Your task to perform on an android device: change timer sound Image 0: 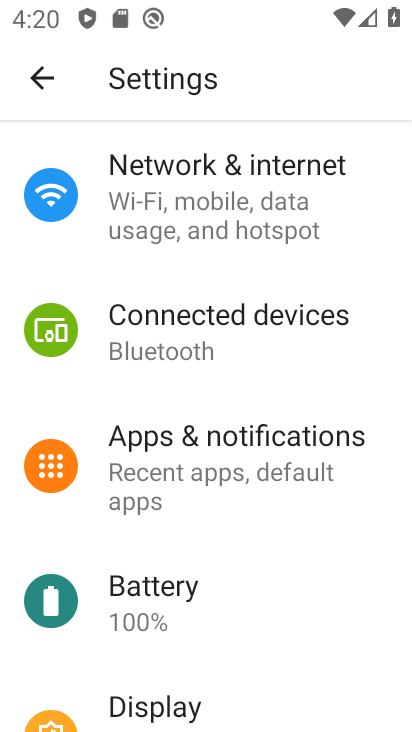
Step 0: press home button
Your task to perform on an android device: change timer sound Image 1: 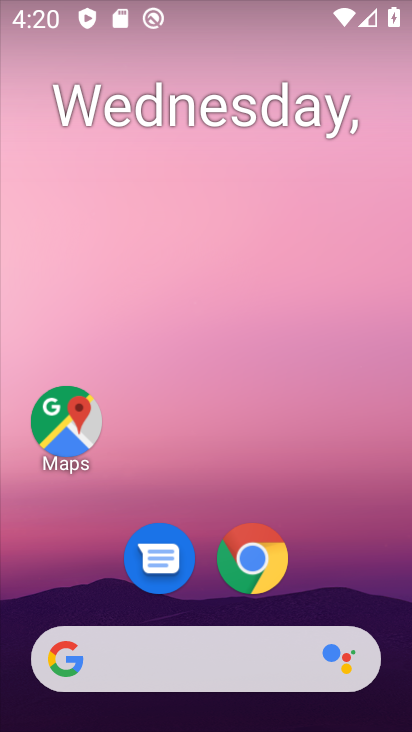
Step 1: drag from (340, 578) to (363, 271)
Your task to perform on an android device: change timer sound Image 2: 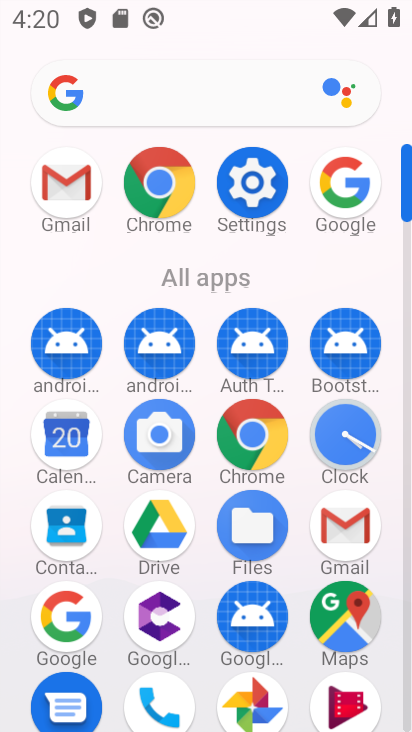
Step 2: click (353, 441)
Your task to perform on an android device: change timer sound Image 3: 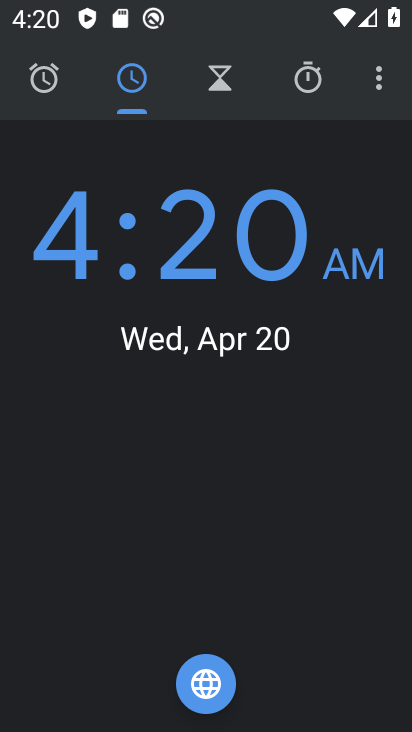
Step 3: click (384, 88)
Your task to perform on an android device: change timer sound Image 4: 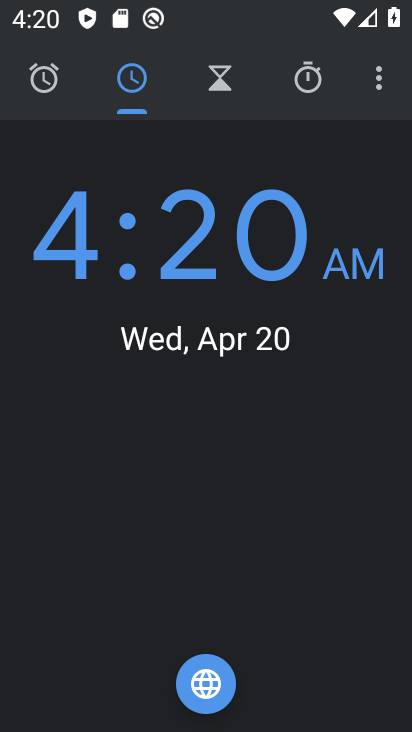
Step 4: click (383, 70)
Your task to perform on an android device: change timer sound Image 5: 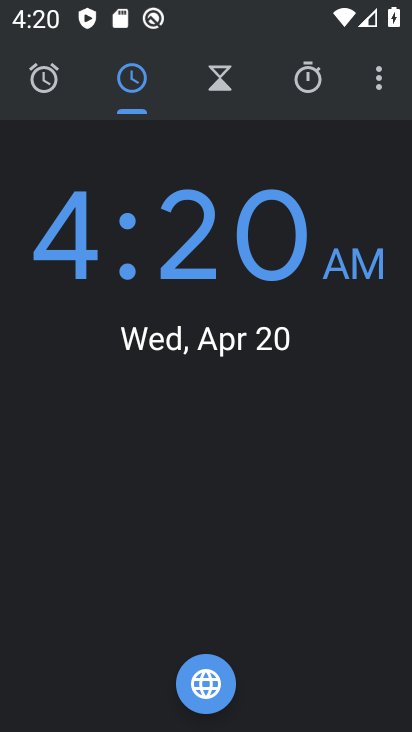
Step 5: click (379, 82)
Your task to perform on an android device: change timer sound Image 6: 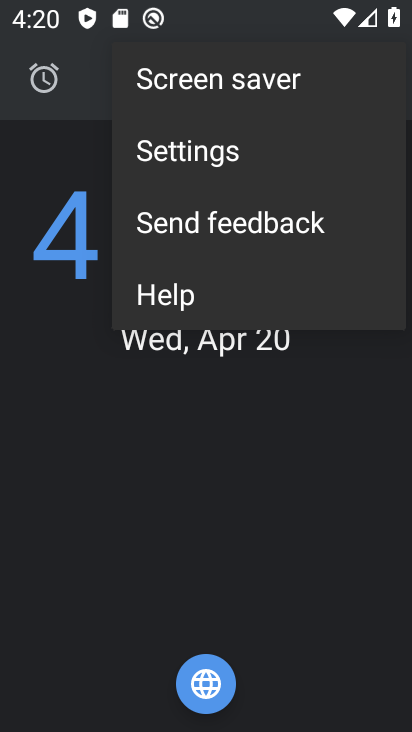
Step 6: click (288, 152)
Your task to perform on an android device: change timer sound Image 7: 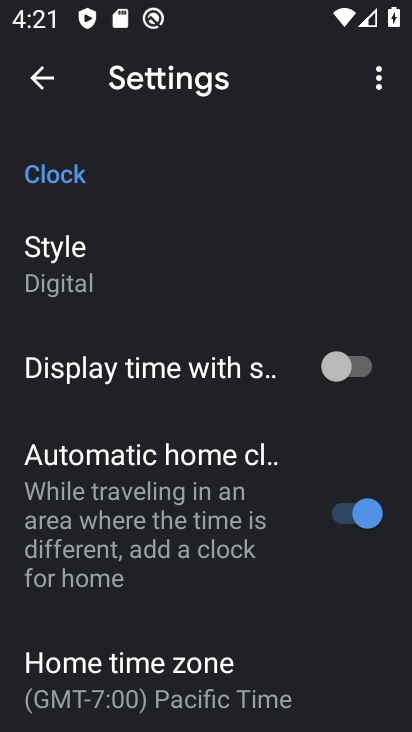
Step 7: drag from (293, 569) to (283, 446)
Your task to perform on an android device: change timer sound Image 8: 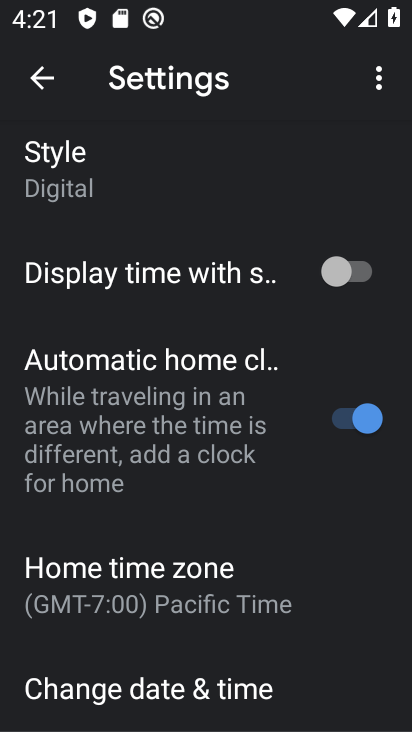
Step 8: drag from (292, 527) to (305, 416)
Your task to perform on an android device: change timer sound Image 9: 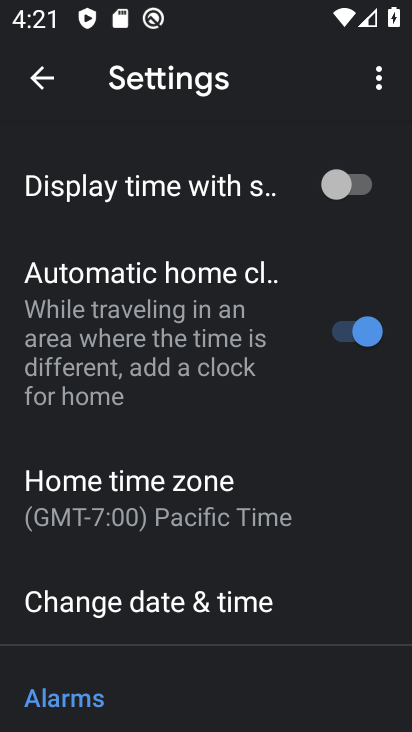
Step 9: drag from (317, 559) to (316, 439)
Your task to perform on an android device: change timer sound Image 10: 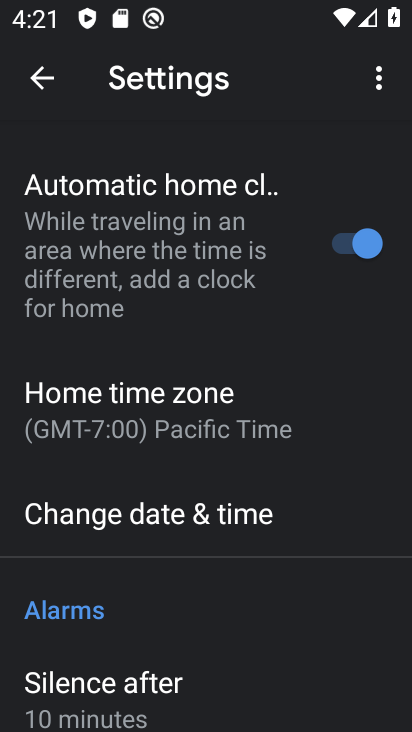
Step 10: drag from (296, 599) to (319, 466)
Your task to perform on an android device: change timer sound Image 11: 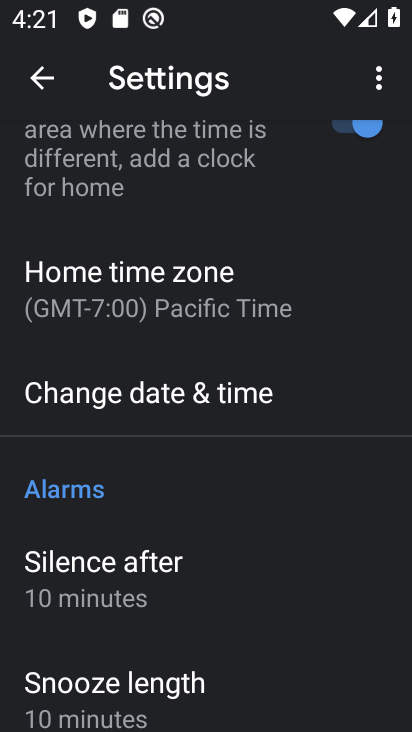
Step 11: drag from (303, 632) to (329, 466)
Your task to perform on an android device: change timer sound Image 12: 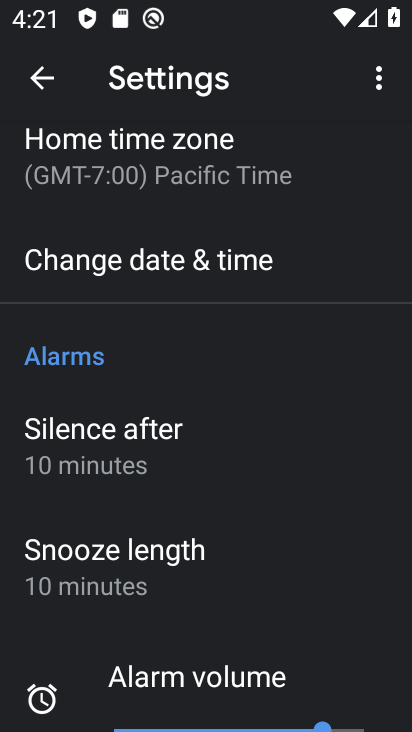
Step 12: drag from (305, 579) to (336, 413)
Your task to perform on an android device: change timer sound Image 13: 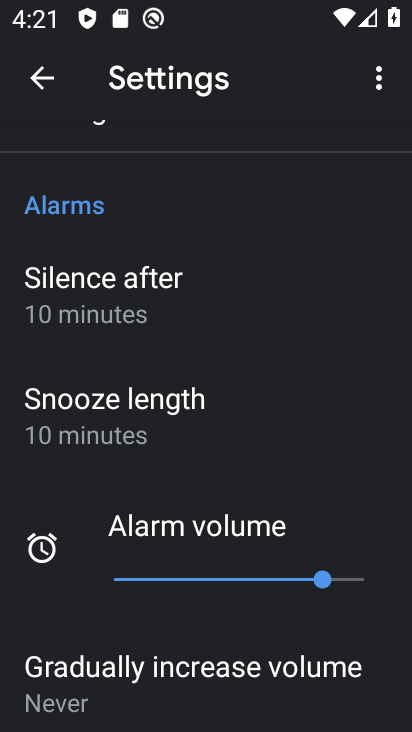
Step 13: drag from (352, 602) to (377, 421)
Your task to perform on an android device: change timer sound Image 14: 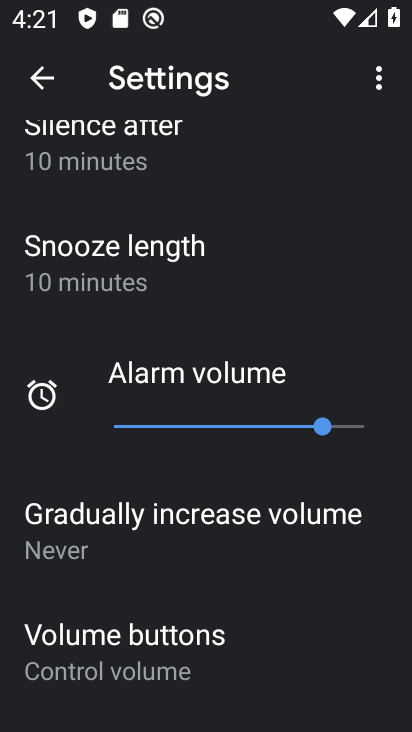
Step 14: drag from (346, 627) to (372, 434)
Your task to perform on an android device: change timer sound Image 15: 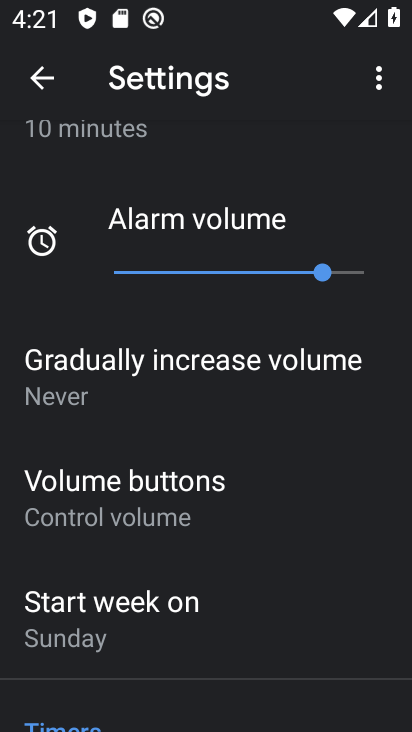
Step 15: drag from (326, 619) to (330, 424)
Your task to perform on an android device: change timer sound Image 16: 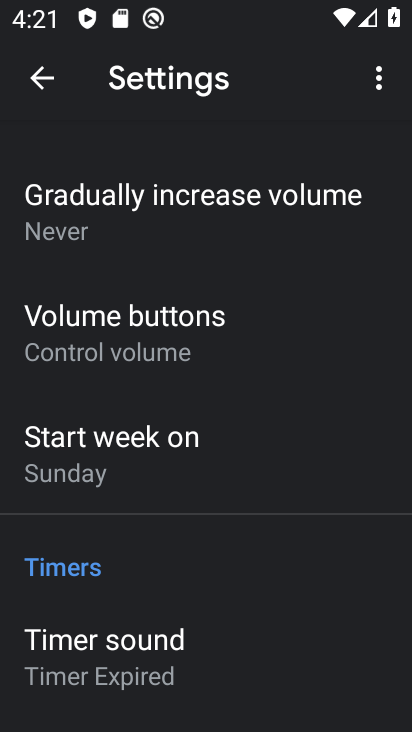
Step 16: drag from (314, 605) to (326, 490)
Your task to perform on an android device: change timer sound Image 17: 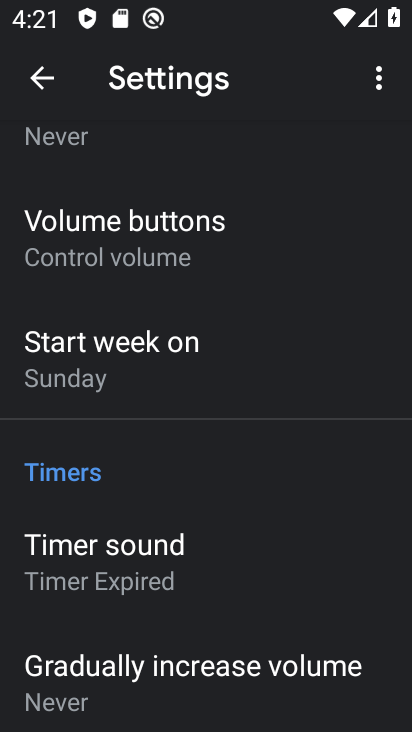
Step 17: click (145, 556)
Your task to perform on an android device: change timer sound Image 18: 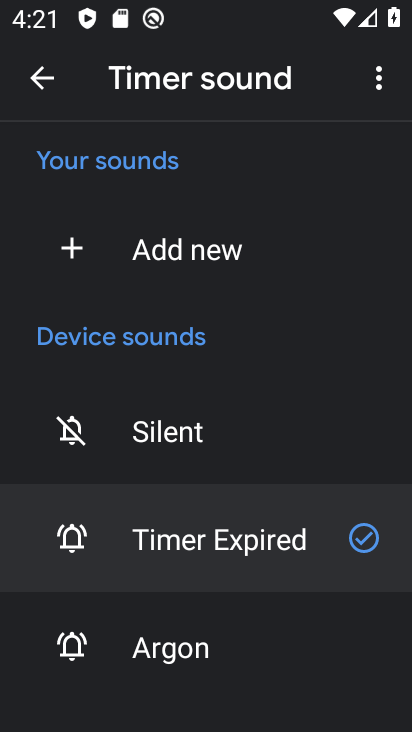
Step 18: click (193, 645)
Your task to perform on an android device: change timer sound Image 19: 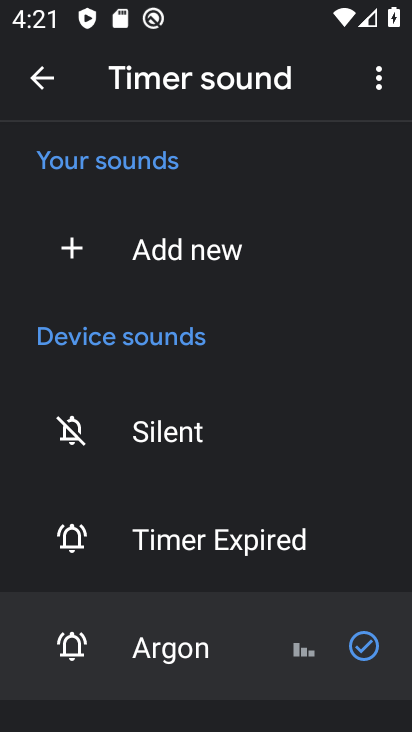
Step 19: task complete